Your task to perform on an android device: turn off wifi Image 0: 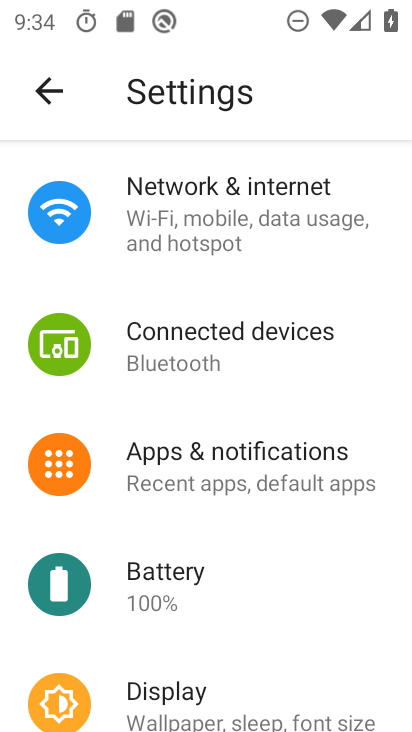
Step 0: click (192, 230)
Your task to perform on an android device: turn off wifi Image 1: 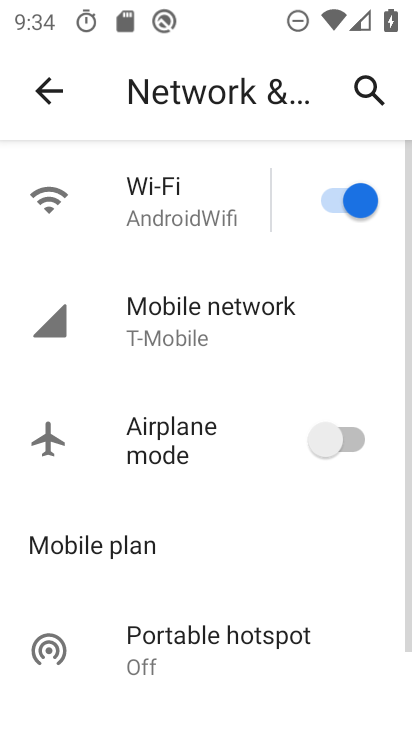
Step 1: click (345, 213)
Your task to perform on an android device: turn off wifi Image 2: 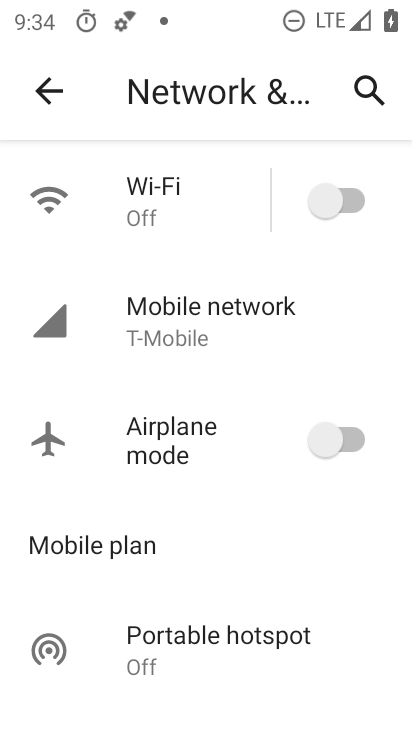
Step 2: task complete